Your task to perform on an android device: What's on my calendar today? Image 0: 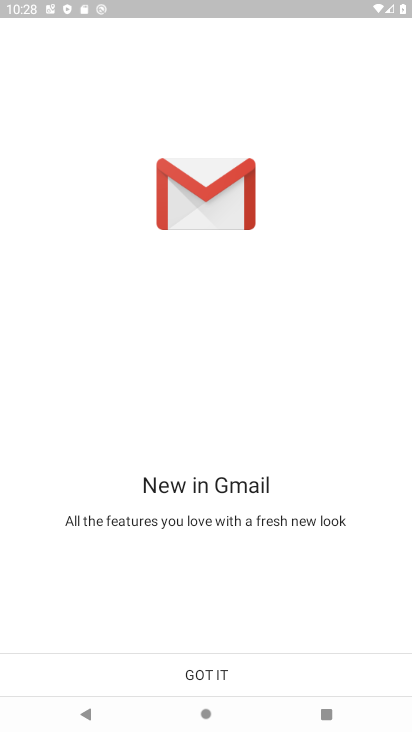
Step 0: press home button
Your task to perform on an android device: What's on my calendar today? Image 1: 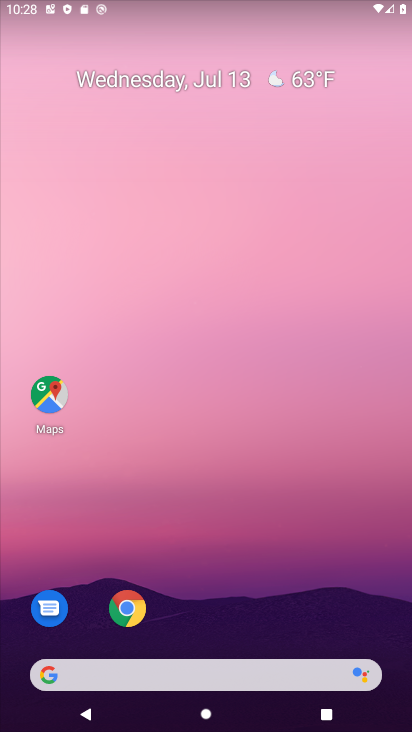
Step 1: drag from (320, 600) to (310, 177)
Your task to perform on an android device: What's on my calendar today? Image 2: 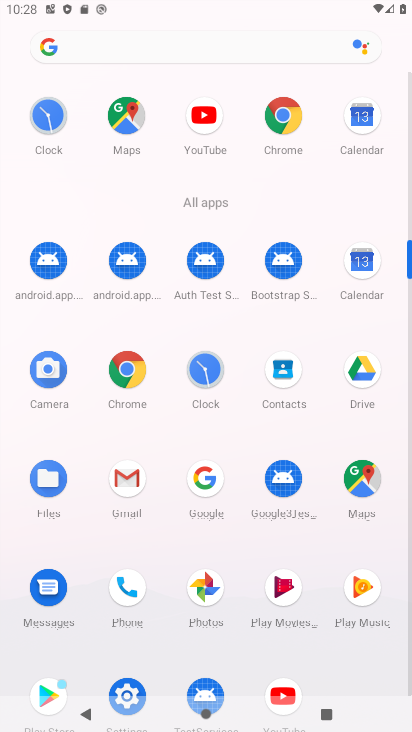
Step 2: click (355, 125)
Your task to perform on an android device: What's on my calendar today? Image 3: 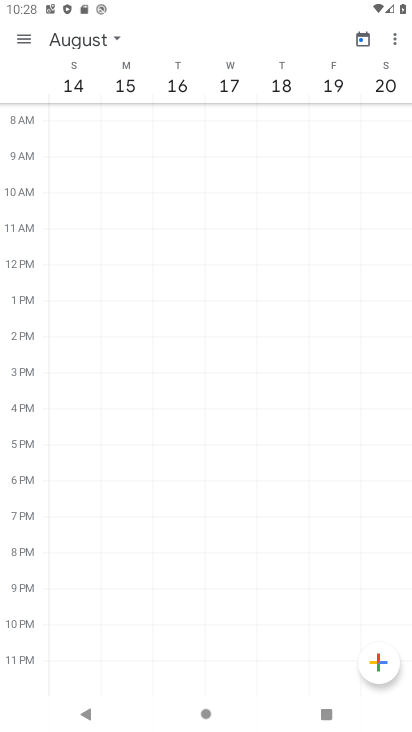
Step 3: drag from (84, 76) to (402, 86)
Your task to perform on an android device: What's on my calendar today? Image 4: 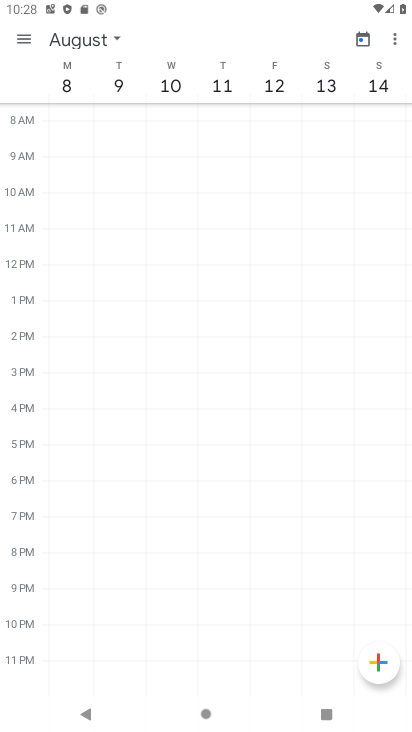
Step 4: click (37, 36)
Your task to perform on an android device: What's on my calendar today? Image 5: 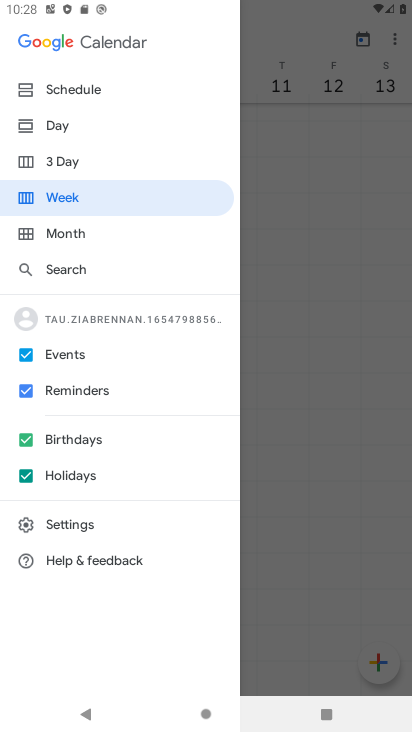
Step 5: click (81, 231)
Your task to perform on an android device: What's on my calendar today? Image 6: 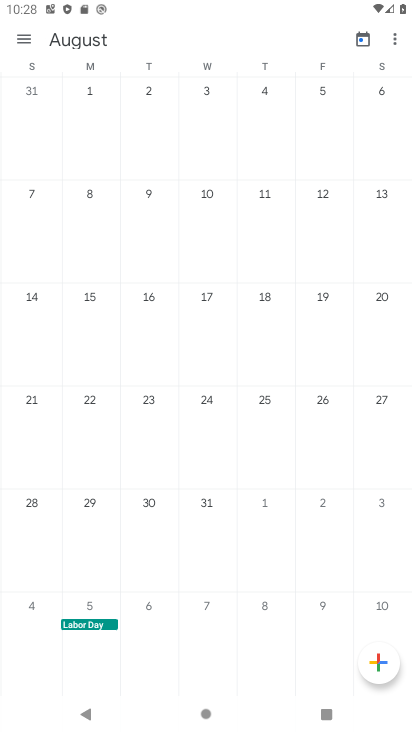
Step 6: drag from (110, 270) to (411, 285)
Your task to perform on an android device: What's on my calendar today? Image 7: 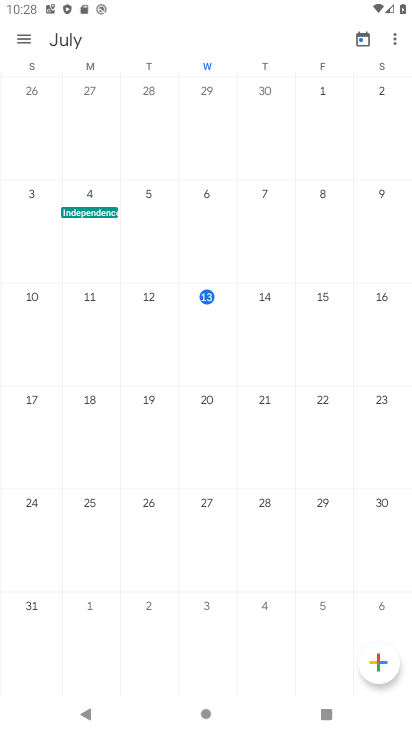
Step 7: click (258, 292)
Your task to perform on an android device: What's on my calendar today? Image 8: 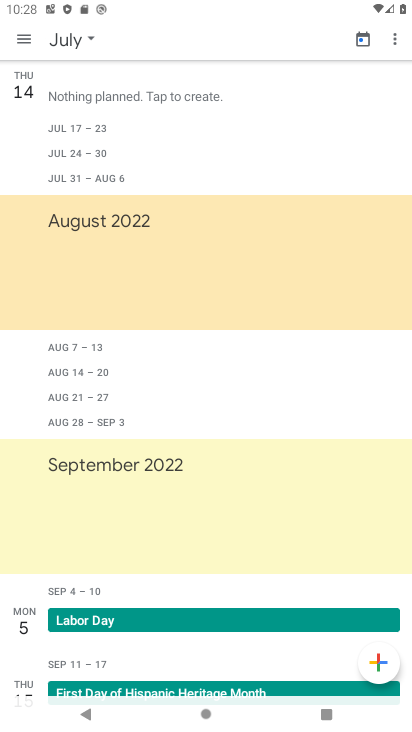
Step 8: task complete